Your task to perform on an android device: Open internet settings Image 0: 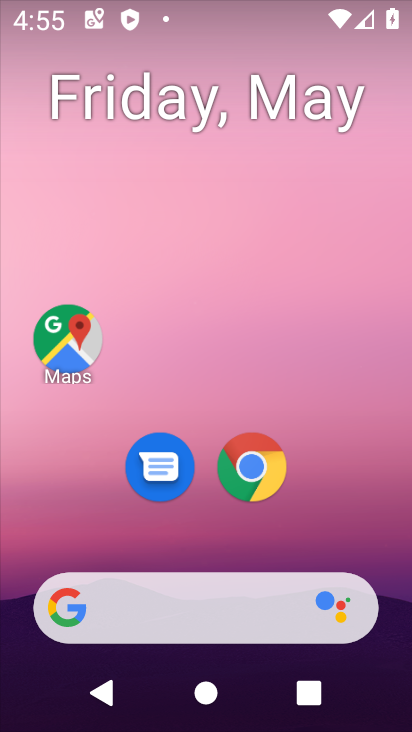
Step 0: drag from (277, 542) to (280, 42)
Your task to perform on an android device: Open internet settings Image 1: 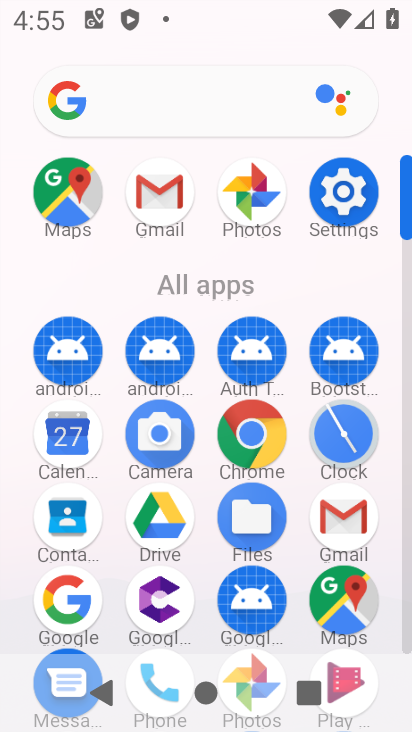
Step 1: click (348, 195)
Your task to perform on an android device: Open internet settings Image 2: 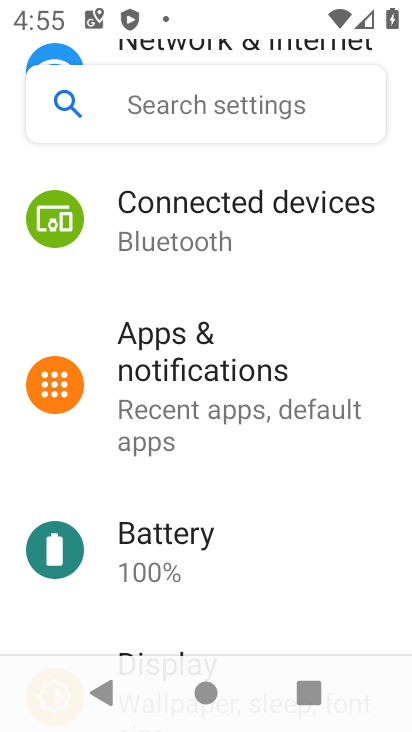
Step 2: drag from (301, 310) to (215, 631)
Your task to perform on an android device: Open internet settings Image 3: 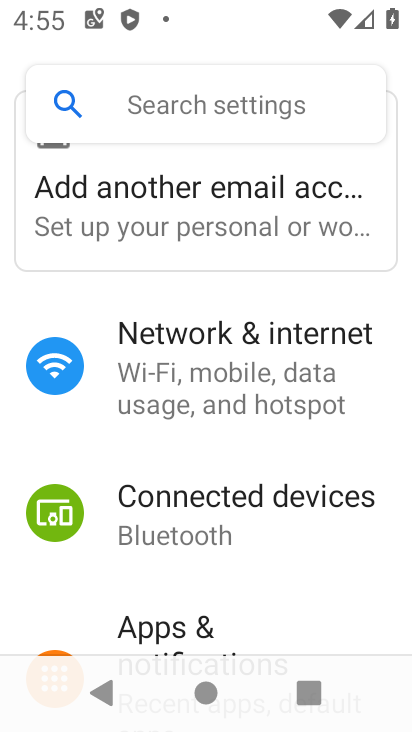
Step 3: click (259, 373)
Your task to perform on an android device: Open internet settings Image 4: 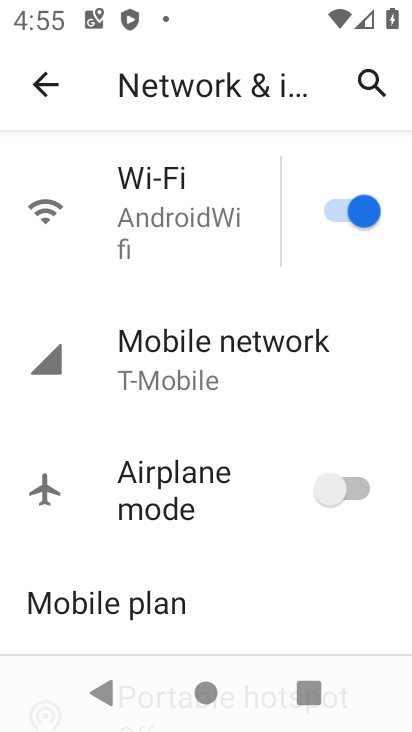
Step 4: task complete